Your task to perform on an android device: What is the recent news? Image 0: 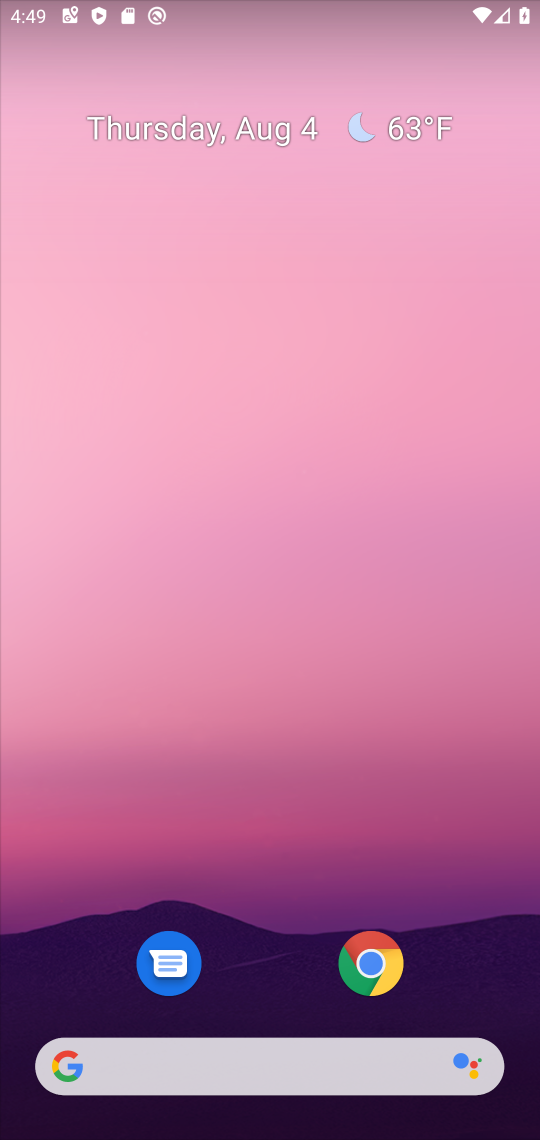
Step 0: drag from (18, 457) to (526, 564)
Your task to perform on an android device: What is the recent news? Image 1: 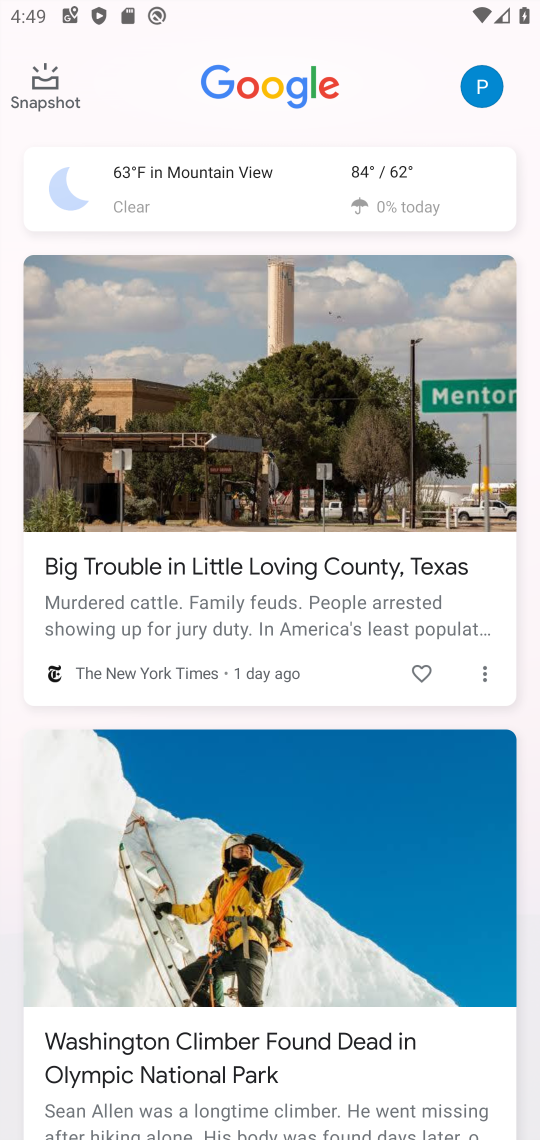
Step 1: task complete